Your task to perform on an android device: Go to Google Image 0: 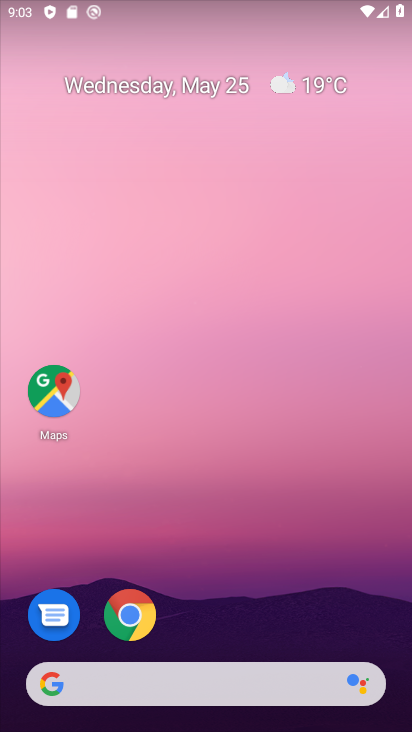
Step 0: drag from (230, 702) to (303, 133)
Your task to perform on an android device: Go to Google Image 1: 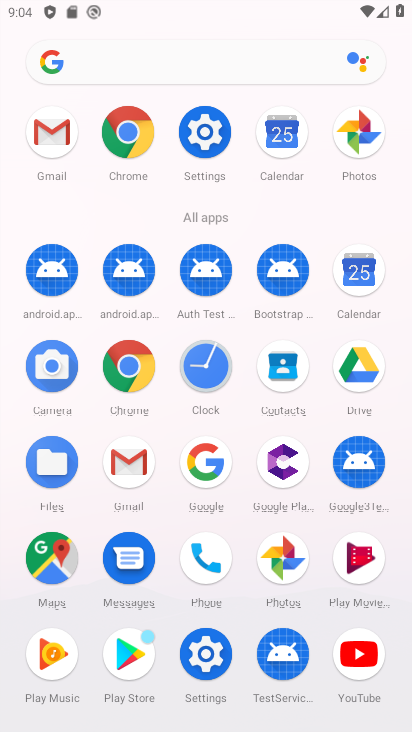
Step 1: click (58, 74)
Your task to perform on an android device: Go to Google Image 2: 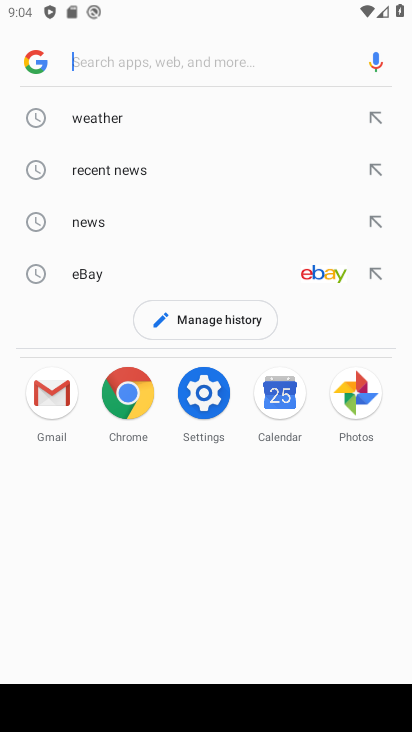
Step 2: click (41, 68)
Your task to perform on an android device: Go to Google Image 3: 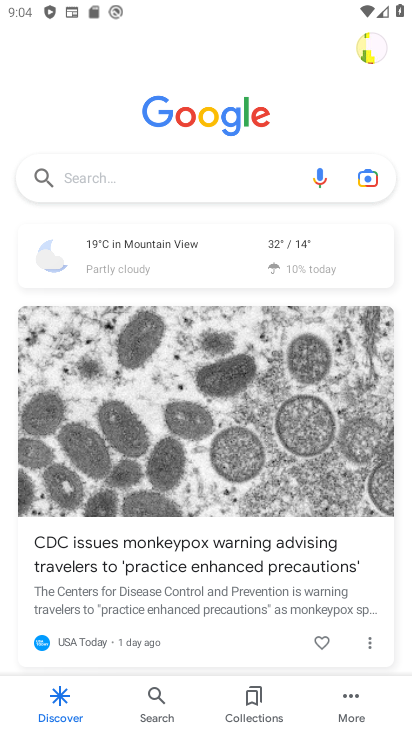
Step 3: task complete